Your task to perform on an android device: turn off location history Image 0: 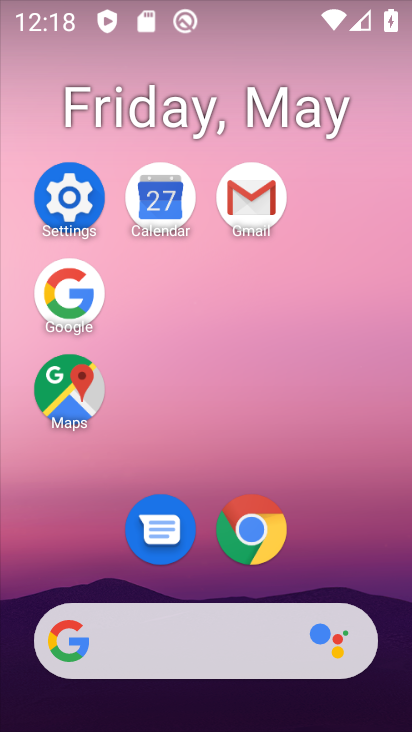
Step 0: click (76, 203)
Your task to perform on an android device: turn off location history Image 1: 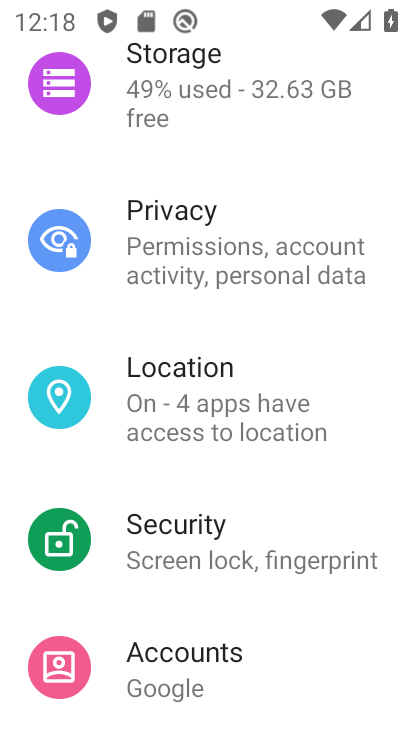
Step 1: click (308, 416)
Your task to perform on an android device: turn off location history Image 2: 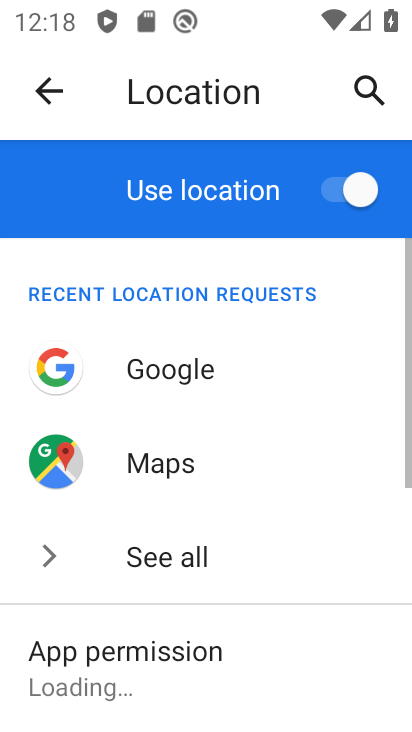
Step 2: click (334, 173)
Your task to perform on an android device: turn off location history Image 3: 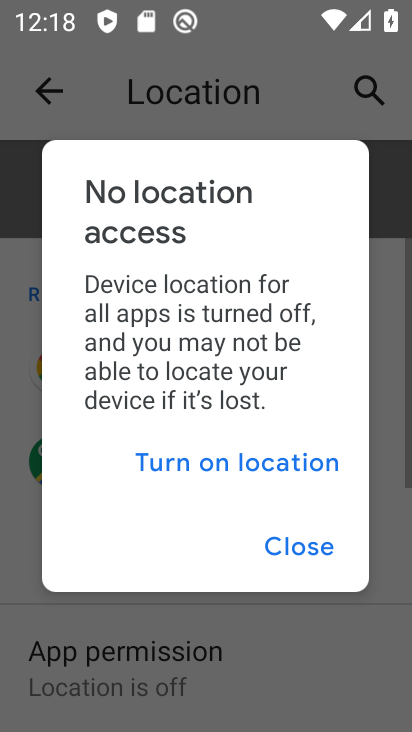
Step 3: task complete